Your task to perform on an android device: What's on my calendar tomorrow? Image 0: 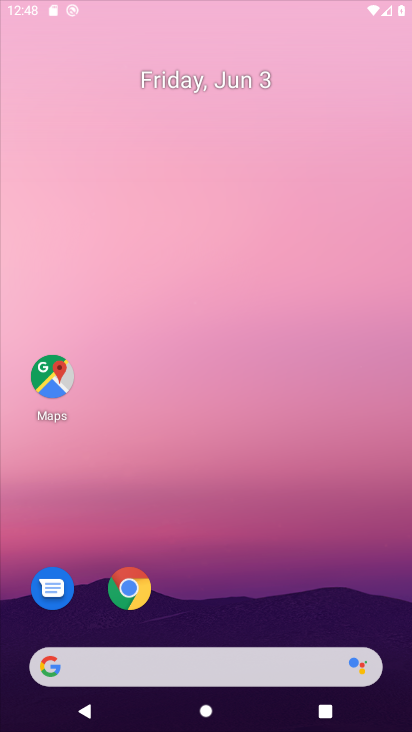
Step 0: press home button
Your task to perform on an android device: What's on my calendar tomorrow? Image 1: 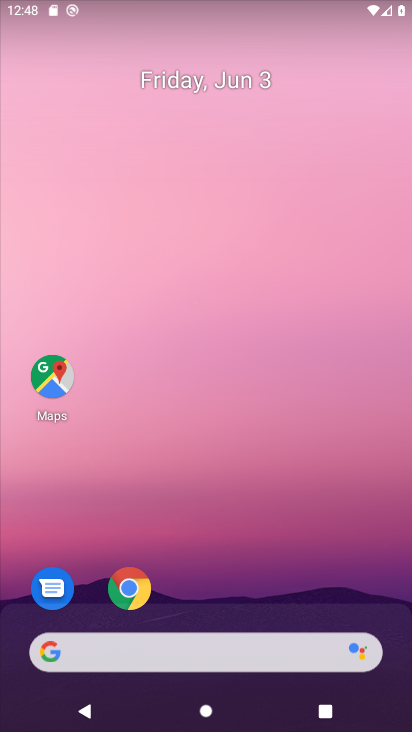
Step 1: drag from (269, 606) to (240, 164)
Your task to perform on an android device: What's on my calendar tomorrow? Image 2: 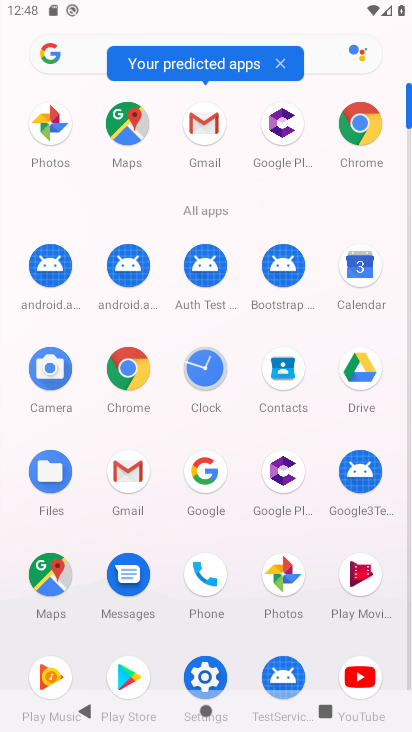
Step 2: click (378, 285)
Your task to perform on an android device: What's on my calendar tomorrow? Image 3: 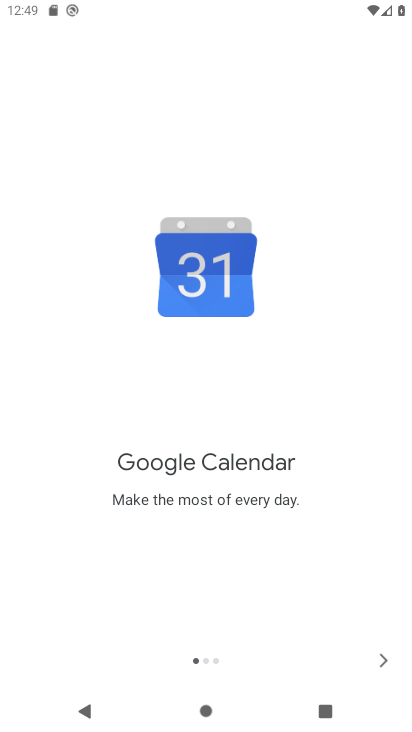
Step 3: click (383, 660)
Your task to perform on an android device: What's on my calendar tomorrow? Image 4: 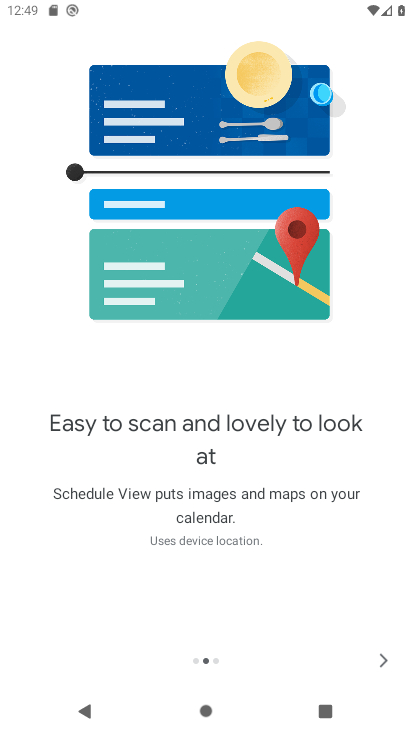
Step 4: click (383, 660)
Your task to perform on an android device: What's on my calendar tomorrow? Image 5: 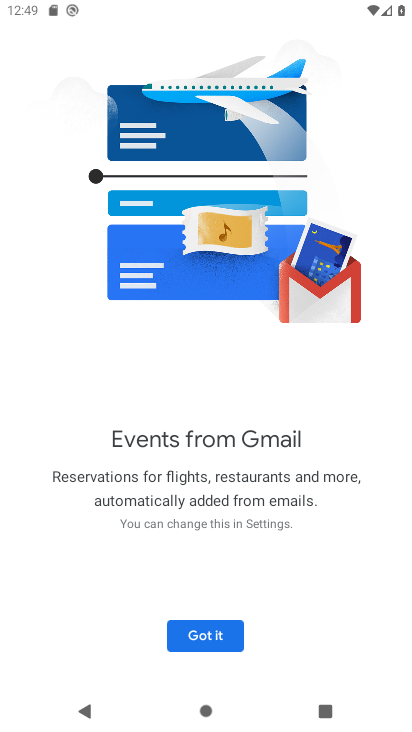
Step 5: click (383, 660)
Your task to perform on an android device: What's on my calendar tomorrow? Image 6: 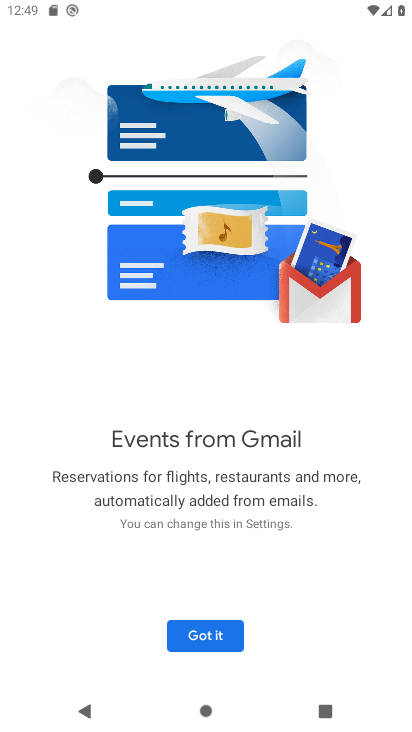
Step 6: click (193, 633)
Your task to perform on an android device: What's on my calendar tomorrow? Image 7: 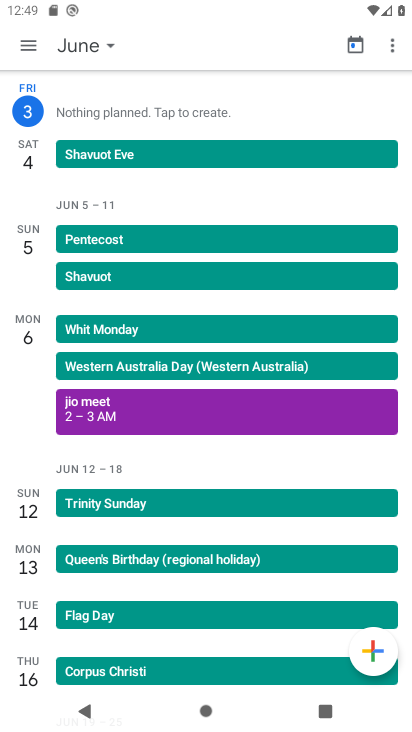
Step 7: click (36, 44)
Your task to perform on an android device: What's on my calendar tomorrow? Image 8: 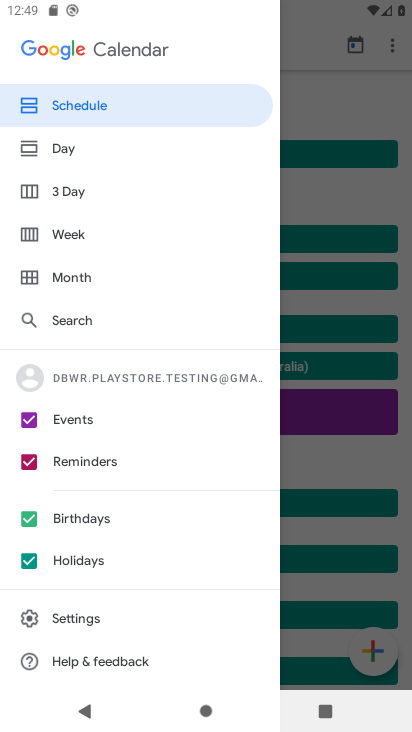
Step 8: click (73, 140)
Your task to perform on an android device: What's on my calendar tomorrow? Image 9: 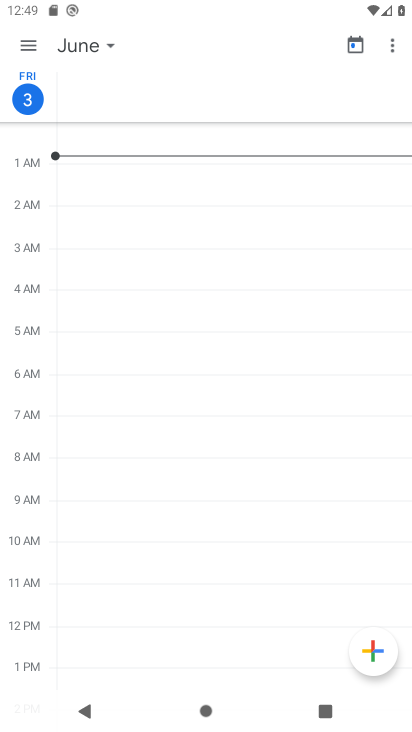
Step 9: click (108, 42)
Your task to perform on an android device: What's on my calendar tomorrow? Image 10: 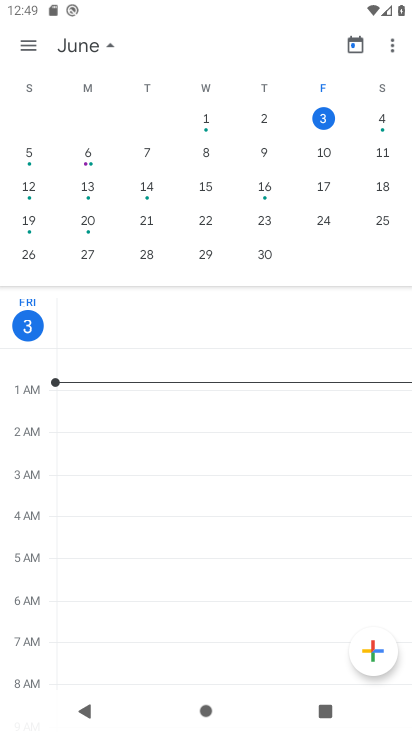
Step 10: click (395, 119)
Your task to perform on an android device: What's on my calendar tomorrow? Image 11: 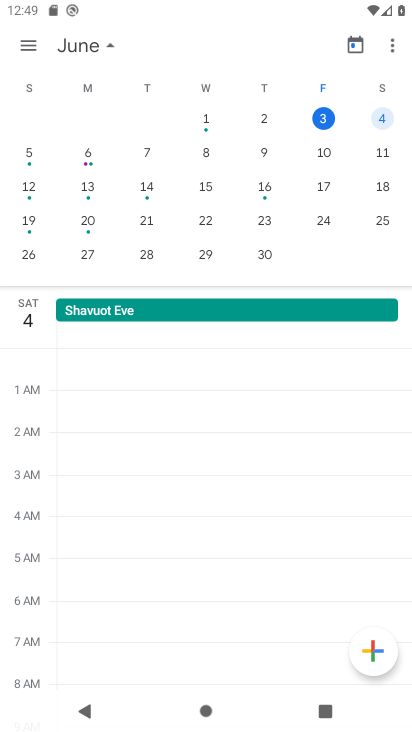
Step 11: task complete